Your task to perform on an android device: Open internet settings Image 0: 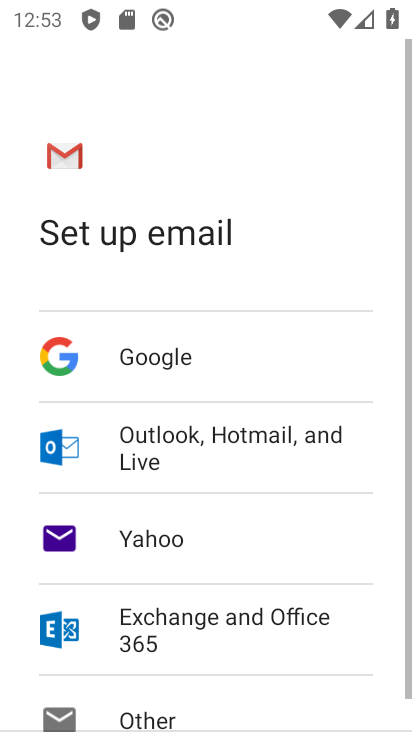
Step 0: press home button
Your task to perform on an android device: Open internet settings Image 1: 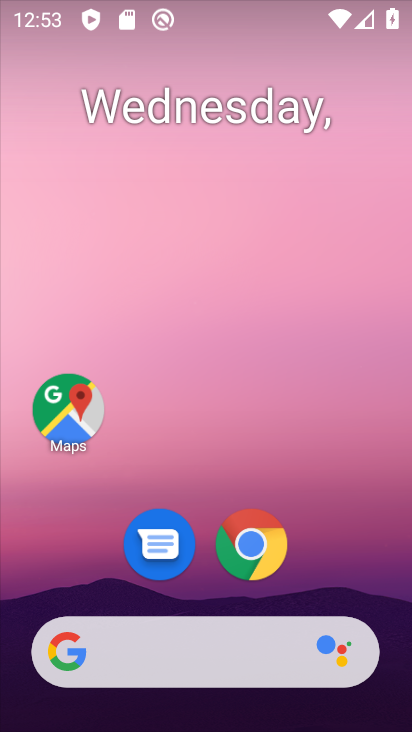
Step 1: drag from (308, 582) to (245, 155)
Your task to perform on an android device: Open internet settings Image 2: 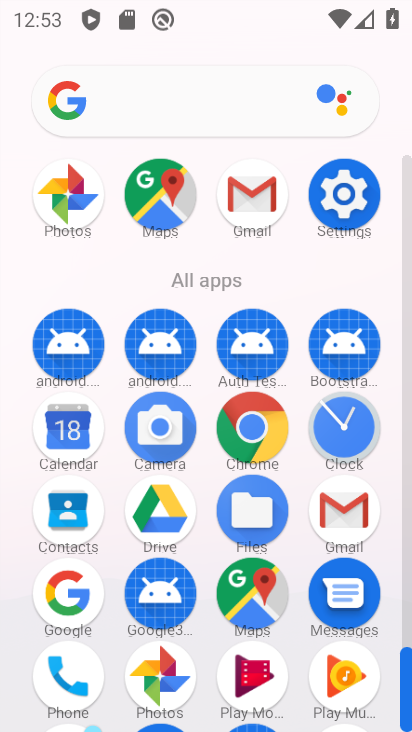
Step 2: click (351, 181)
Your task to perform on an android device: Open internet settings Image 3: 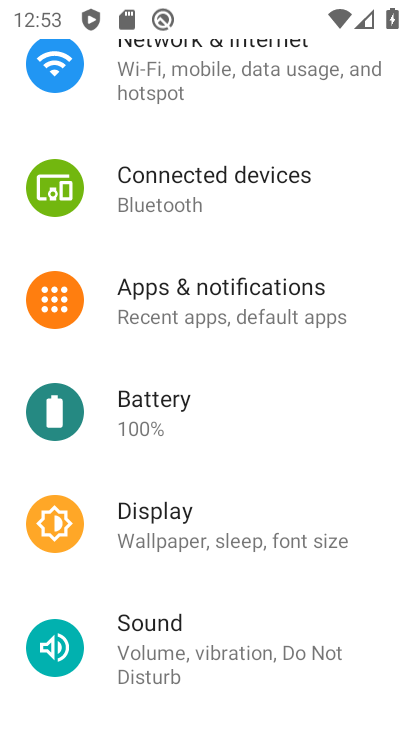
Step 3: drag from (277, 144) to (275, 274)
Your task to perform on an android device: Open internet settings Image 4: 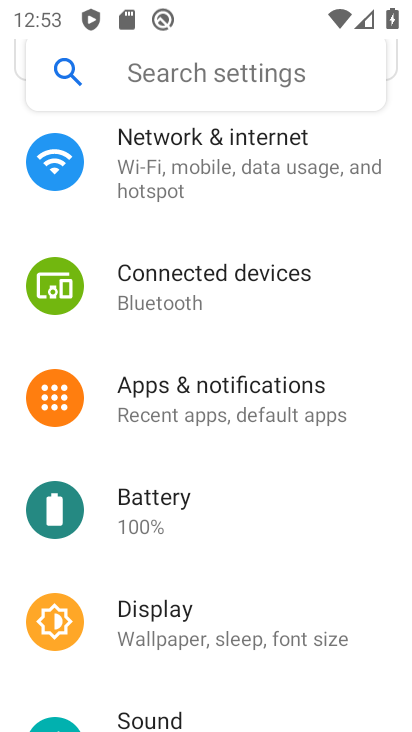
Step 4: click (235, 164)
Your task to perform on an android device: Open internet settings Image 5: 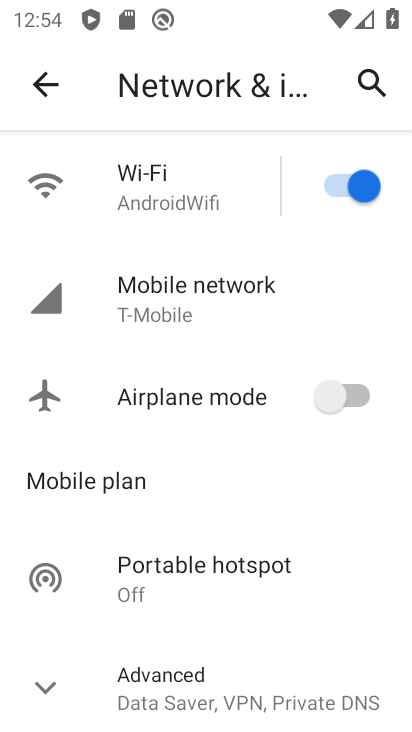
Step 5: task complete